Your task to perform on an android device: Add "logitech g502" to the cart on walmart.com Image 0: 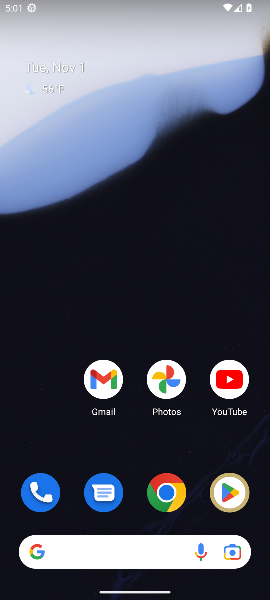
Step 0: click (170, 496)
Your task to perform on an android device: Add "logitech g502" to the cart on walmart.com Image 1: 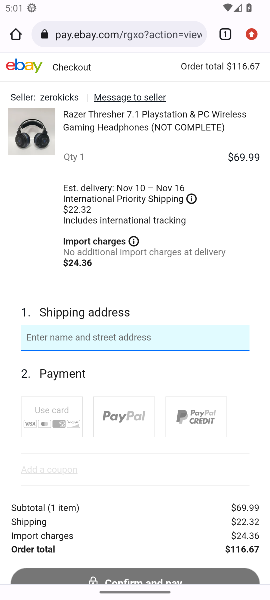
Step 1: click (76, 34)
Your task to perform on an android device: Add "logitech g502" to the cart on walmart.com Image 2: 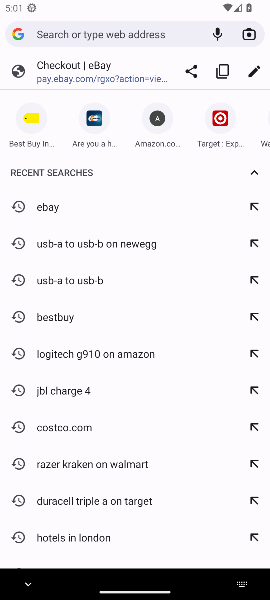
Step 2: type "walmart.com"
Your task to perform on an android device: Add "logitech g502" to the cart on walmart.com Image 3: 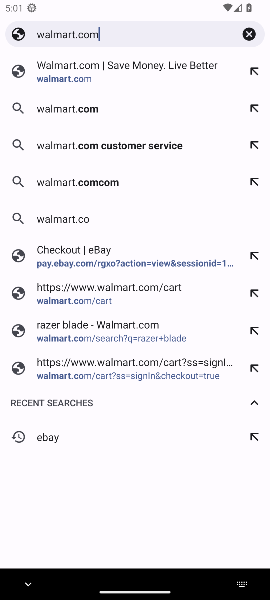
Step 3: type ""
Your task to perform on an android device: Add "logitech g502" to the cart on walmart.com Image 4: 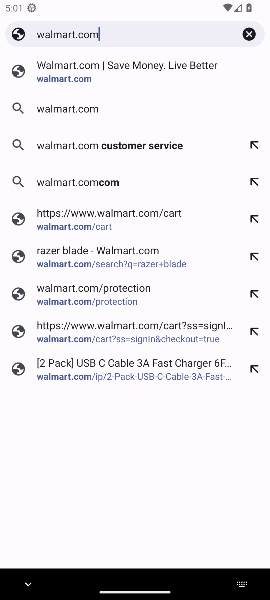
Step 4: click (139, 75)
Your task to perform on an android device: Add "logitech g502" to the cart on walmart.com Image 5: 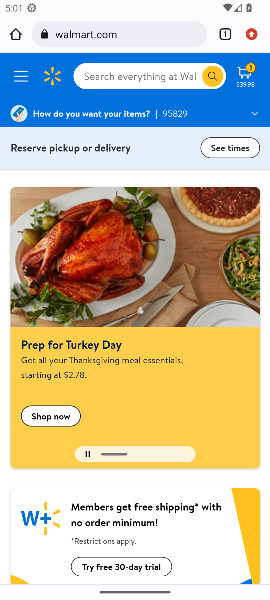
Step 5: click (100, 77)
Your task to perform on an android device: Add "logitech g502" to the cart on walmart.com Image 6: 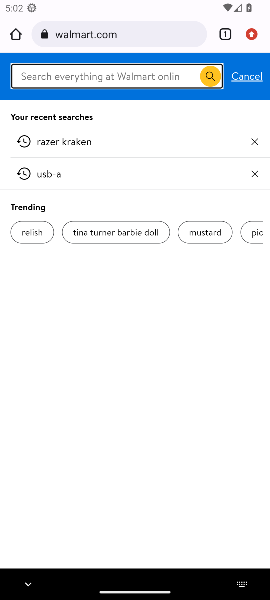
Step 6: click (102, 74)
Your task to perform on an android device: Add "logitech g502" to the cart on walmart.com Image 7: 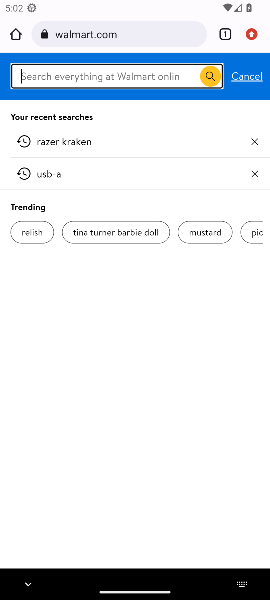
Step 7: click (102, 74)
Your task to perform on an android device: Add "logitech g502" to the cart on walmart.com Image 8: 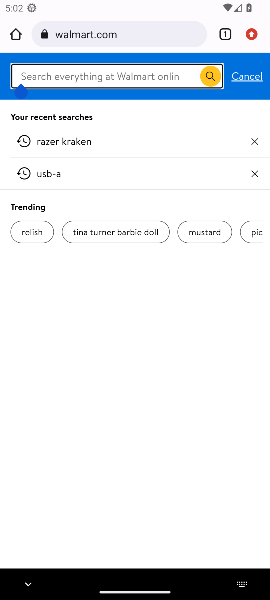
Step 8: type "logitech g502"
Your task to perform on an android device: Add "logitech g502" to the cart on walmart.com Image 9: 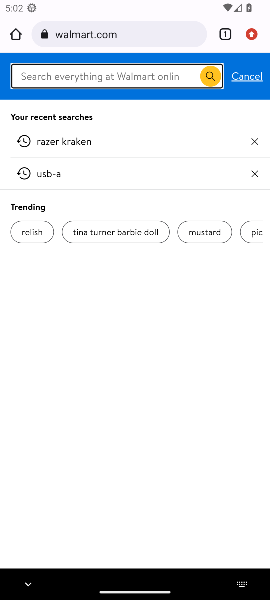
Step 9: type ""
Your task to perform on an android device: Add "logitech g502" to the cart on walmart.com Image 10: 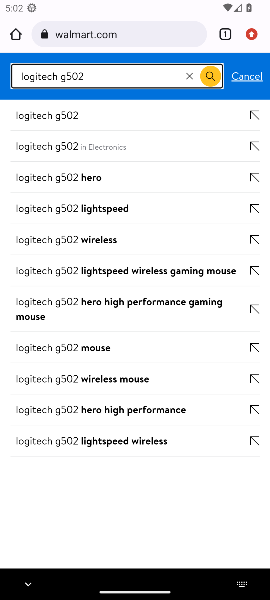
Step 10: click (38, 115)
Your task to perform on an android device: Add "logitech g502" to the cart on walmart.com Image 11: 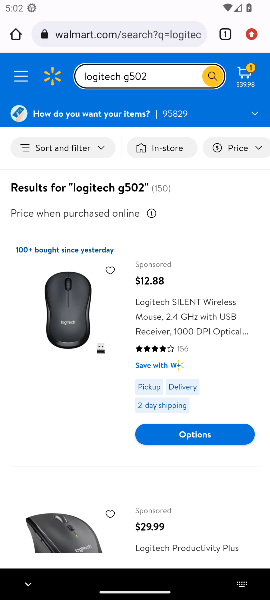
Step 11: click (215, 81)
Your task to perform on an android device: Add "logitech g502" to the cart on walmart.com Image 12: 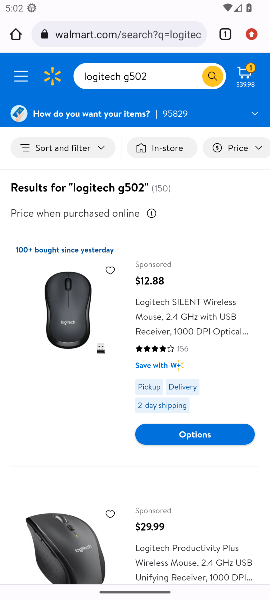
Step 12: drag from (218, 562) to (224, 270)
Your task to perform on an android device: Add "logitech g502" to the cart on walmart.com Image 13: 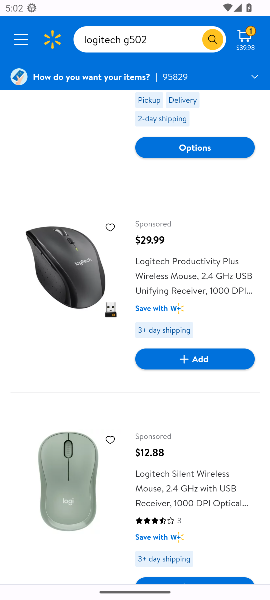
Step 13: drag from (157, 246) to (157, 169)
Your task to perform on an android device: Add "logitech g502" to the cart on walmart.com Image 14: 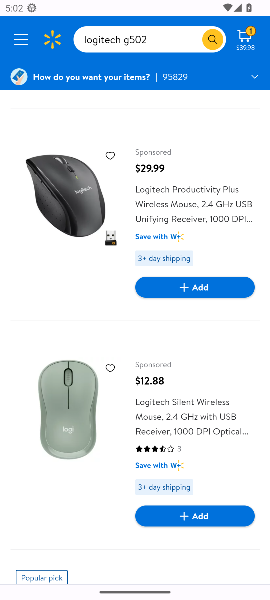
Step 14: drag from (214, 492) to (206, 175)
Your task to perform on an android device: Add "logitech g502" to the cart on walmart.com Image 15: 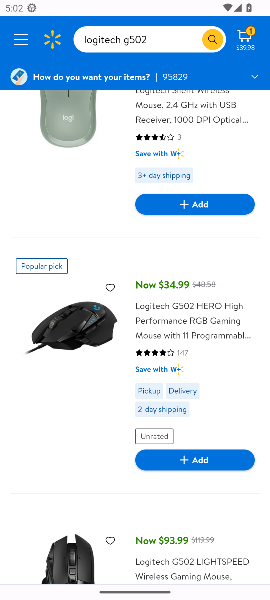
Step 15: drag from (218, 534) to (213, 231)
Your task to perform on an android device: Add "logitech g502" to the cart on walmart.com Image 16: 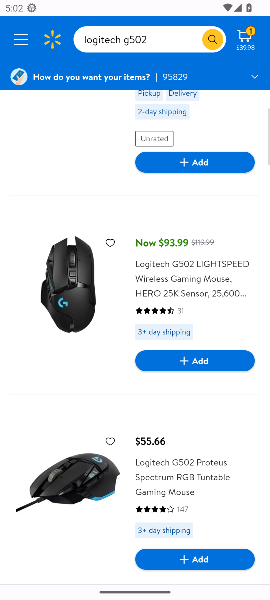
Step 16: click (192, 358)
Your task to perform on an android device: Add "logitech g502" to the cart on walmart.com Image 17: 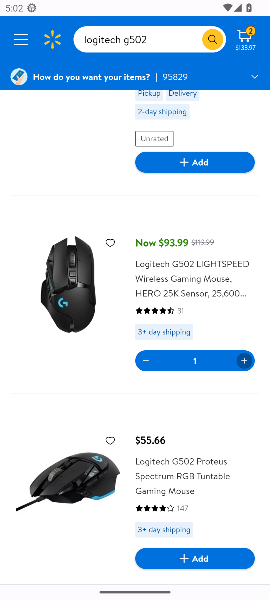
Step 17: click (245, 42)
Your task to perform on an android device: Add "logitech g502" to the cart on walmart.com Image 18: 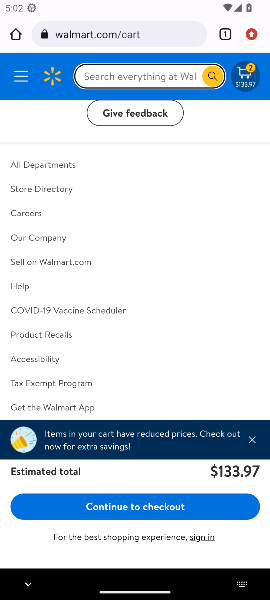
Step 18: click (256, 439)
Your task to perform on an android device: Add "logitech g502" to the cart on walmart.com Image 19: 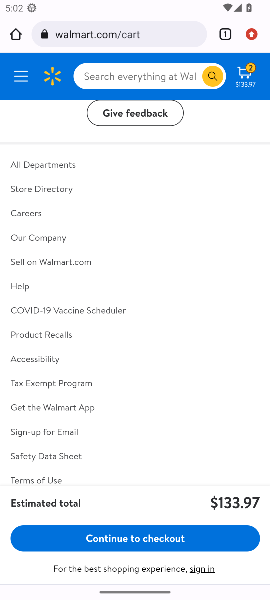
Step 19: click (159, 541)
Your task to perform on an android device: Add "logitech g502" to the cart on walmart.com Image 20: 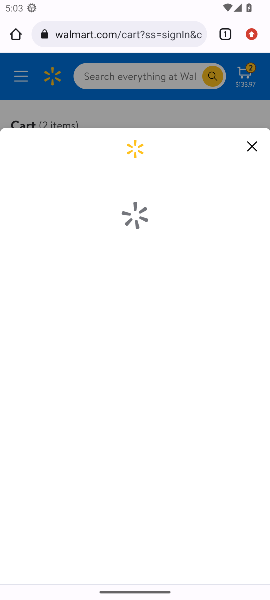
Step 20: click (255, 144)
Your task to perform on an android device: Add "logitech g502" to the cart on walmart.com Image 21: 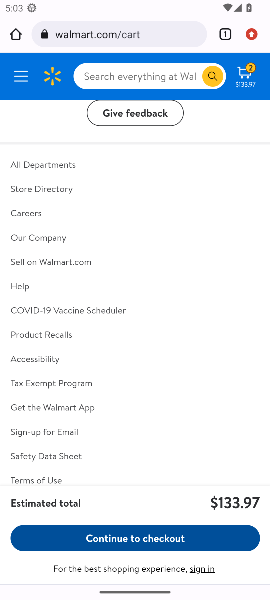
Step 21: task complete